Your task to perform on an android device: toggle airplane mode Image 0: 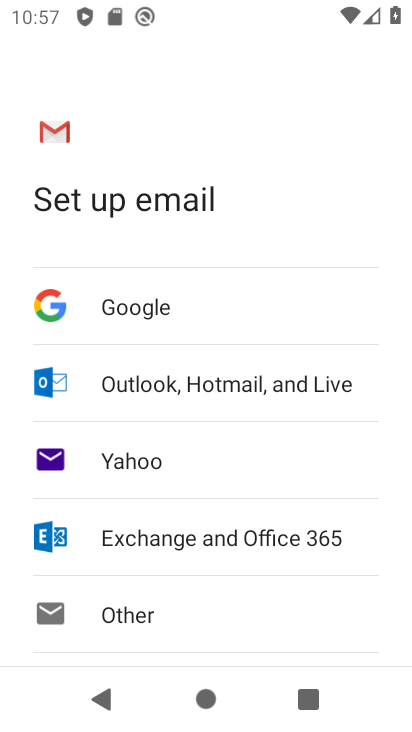
Step 0: drag from (224, 11) to (205, 452)
Your task to perform on an android device: toggle airplane mode Image 1: 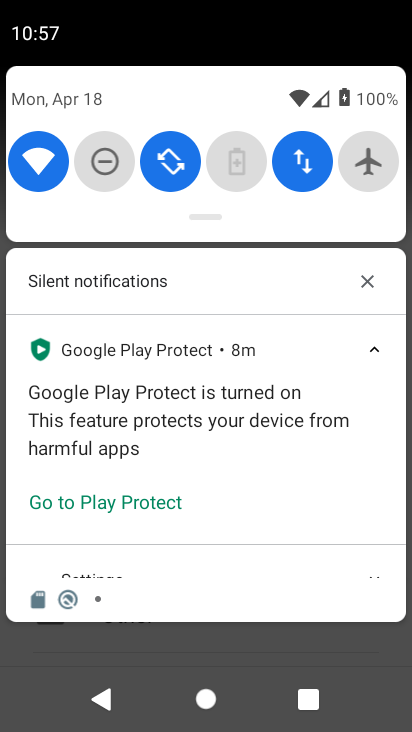
Step 1: click (370, 158)
Your task to perform on an android device: toggle airplane mode Image 2: 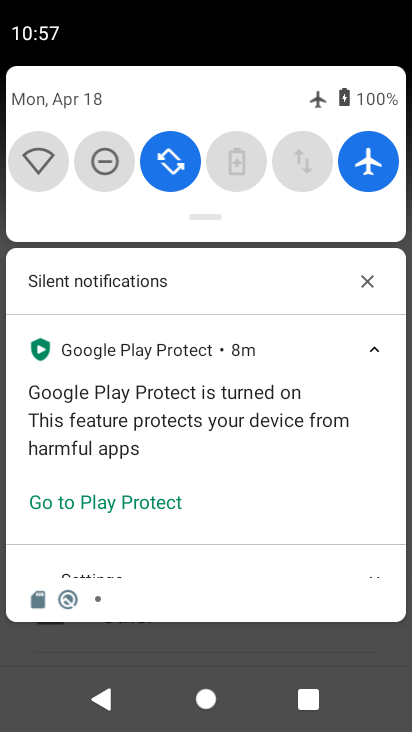
Step 2: click (370, 158)
Your task to perform on an android device: toggle airplane mode Image 3: 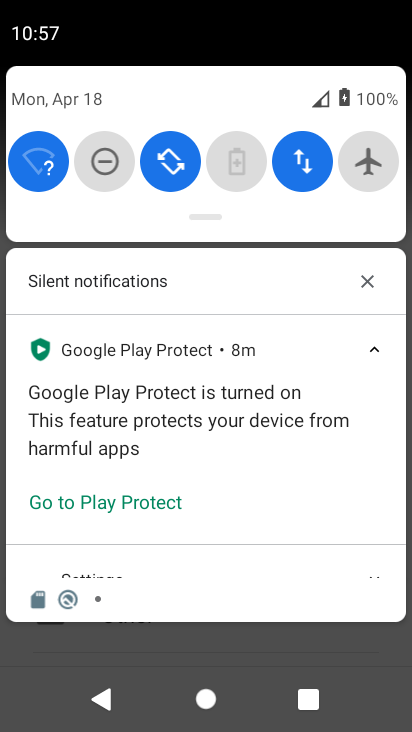
Step 3: click (370, 158)
Your task to perform on an android device: toggle airplane mode Image 4: 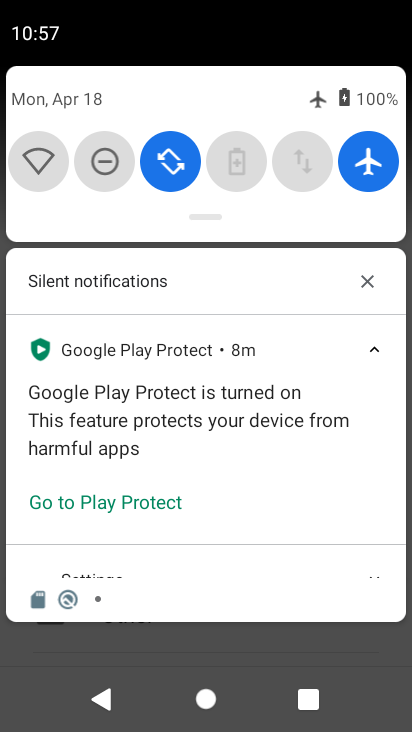
Step 4: click (370, 158)
Your task to perform on an android device: toggle airplane mode Image 5: 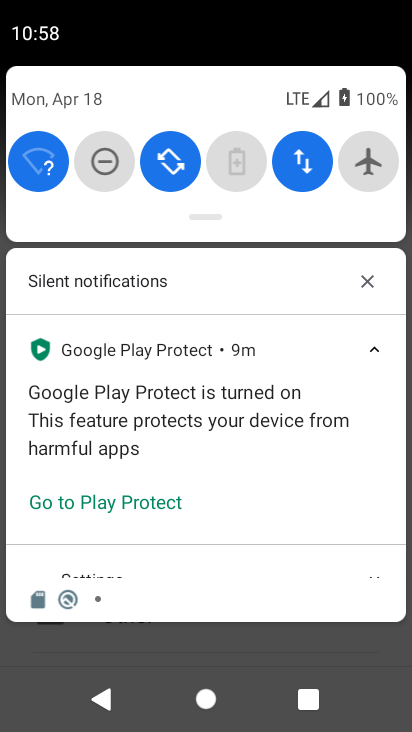
Step 5: task complete